Your task to perform on an android device: Open battery settings Image 0: 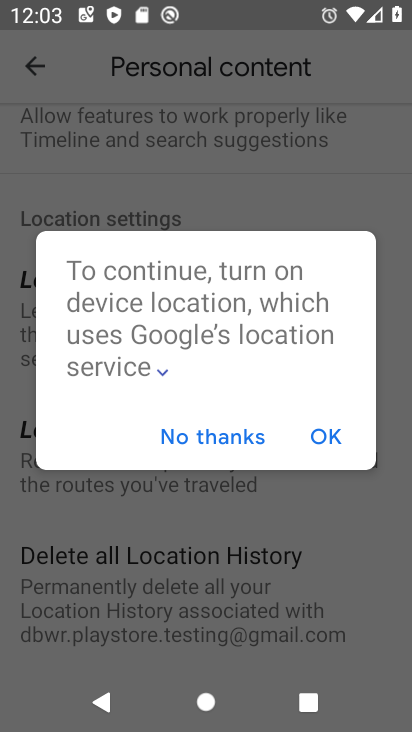
Step 0: drag from (291, 18) to (250, 326)
Your task to perform on an android device: Open battery settings Image 1: 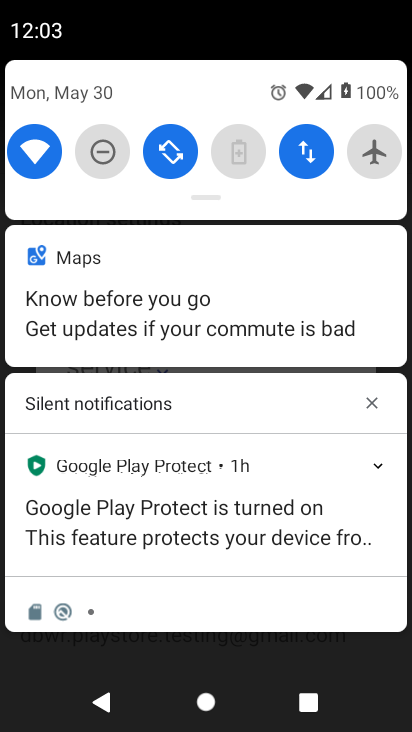
Step 1: click (228, 142)
Your task to perform on an android device: Open battery settings Image 2: 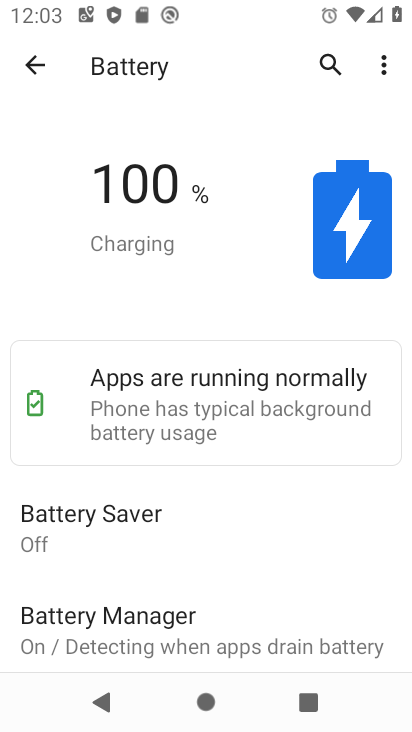
Step 2: task complete